Your task to perform on an android device: Open the stopwatch Image 0: 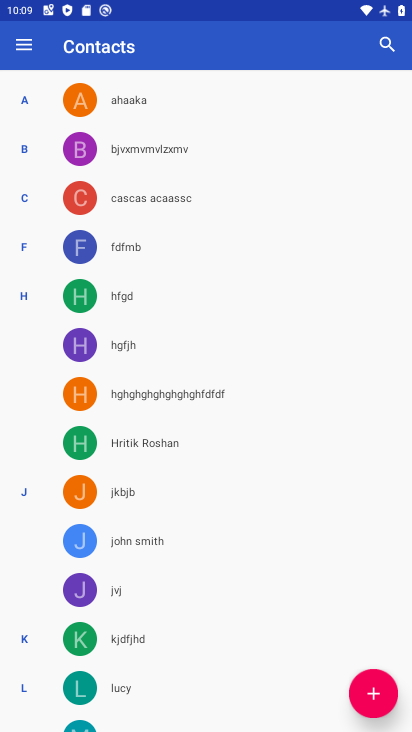
Step 0: press home button
Your task to perform on an android device: Open the stopwatch Image 1: 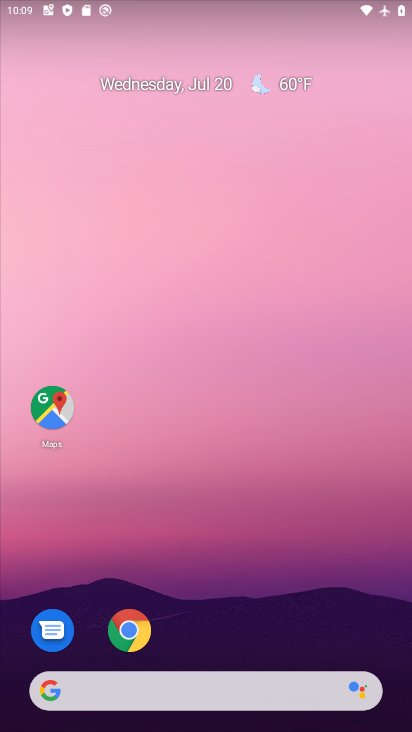
Step 1: drag from (214, 683) to (191, 407)
Your task to perform on an android device: Open the stopwatch Image 2: 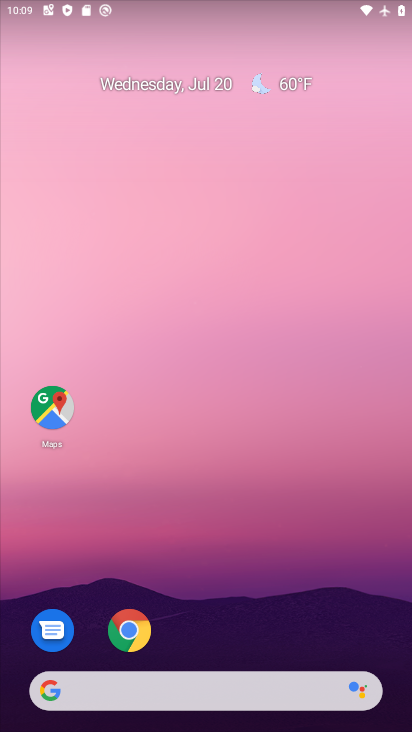
Step 2: drag from (226, 670) to (285, 248)
Your task to perform on an android device: Open the stopwatch Image 3: 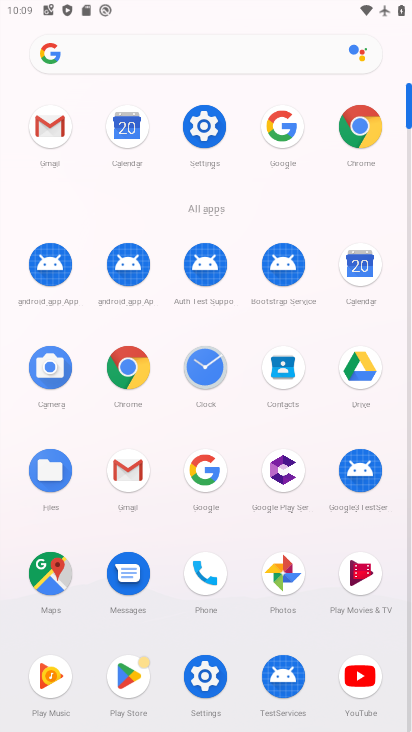
Step 3: click (221, 372)
Your task to perform on an android device: Open the stopwatch Image 4: 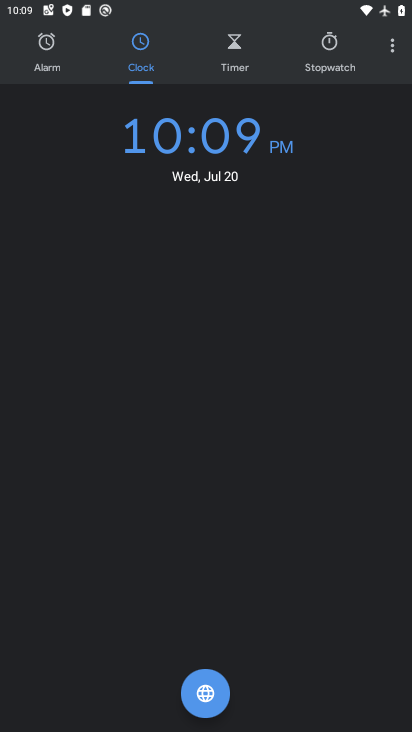
Step 4: click (351, 58)
Your task to perform on an android device: Open the stopwatch Image 5: 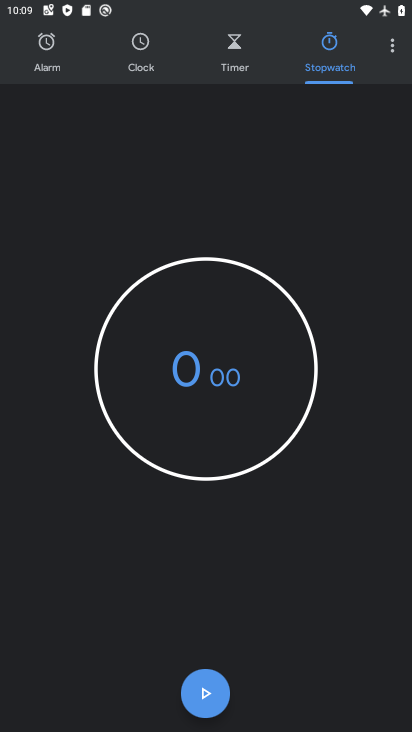
Step 5: task complete